Your task to perform on an android device: Check the news Image 0: 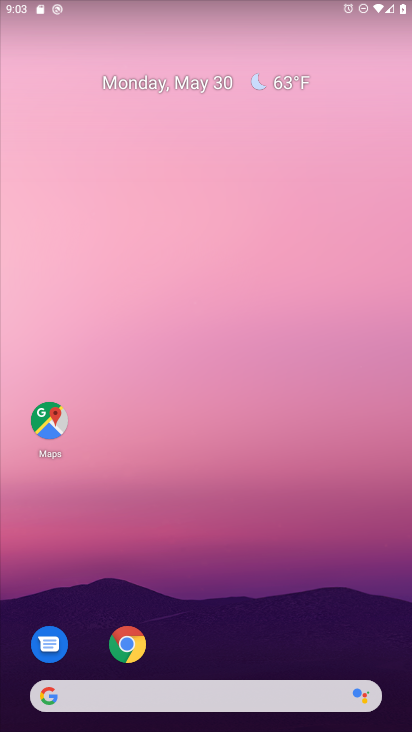
Step 0: drag from (211, 648) to (232, 69)
Your task to perform on an android device: Check the news Image 1: 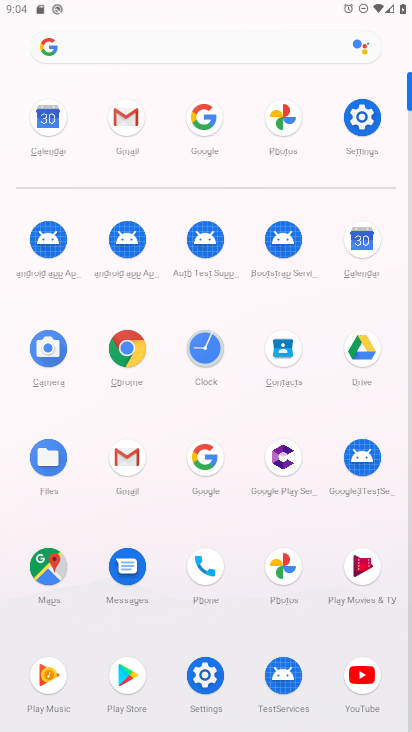
Step 1: click (205, 114)
Your task to perform on an android device: Check the news Image 2: 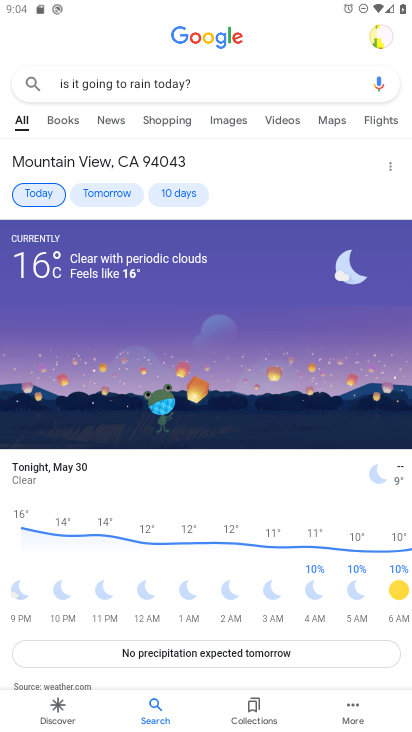
Step 2: click (234, 81)
Your task to perform on an android device: Check the news Image 3: 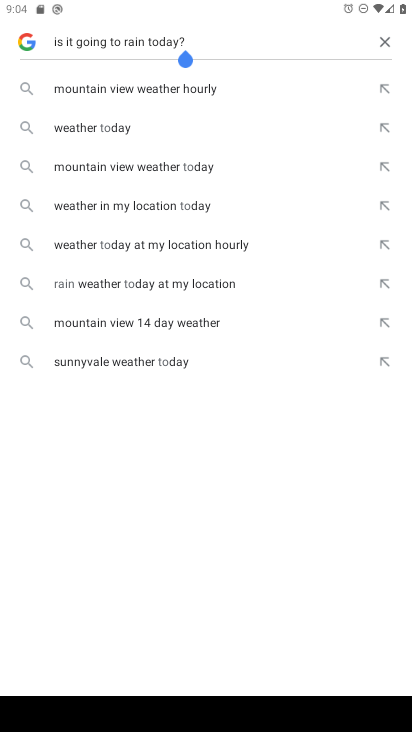
Step 3: click (386, 42)
Your task to perform on an android device: Check the news Image 4: 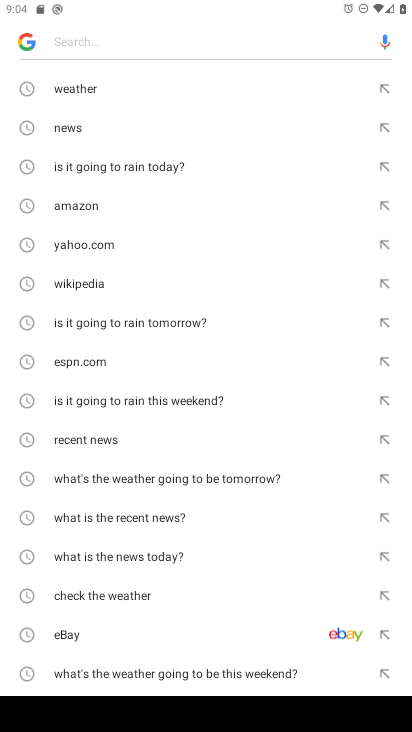
Step 4: click (83, 129)
Your task to perform on an android device: Check the news Image 5: 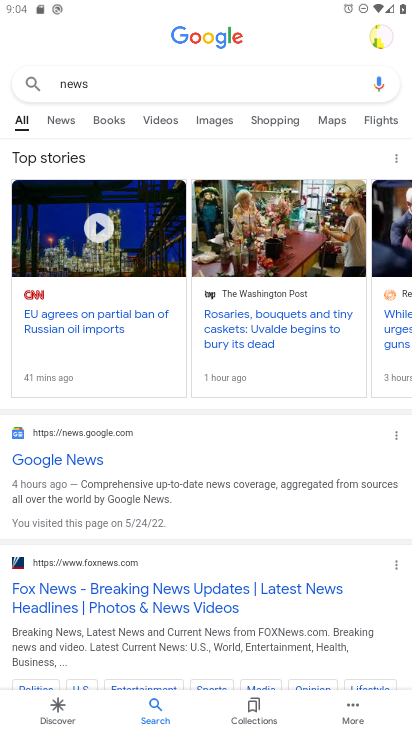
Step 5: task complete